Your task to perform on an android device: empty trash in the gmail app Image 0: 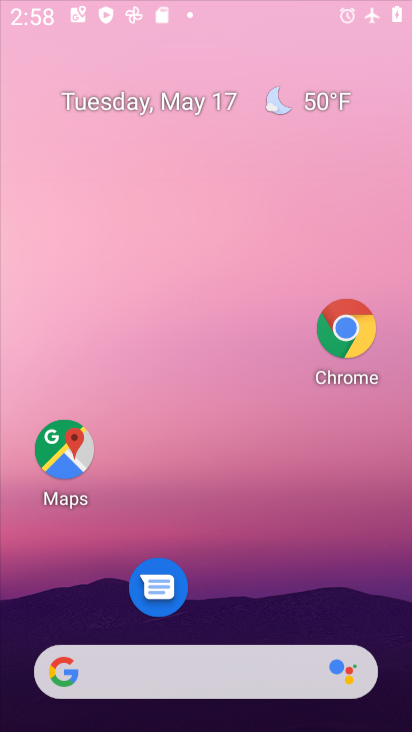
Step 0: click (266, 26)
Your task to perform on an android device: empty trash in the gmail app Image 1: 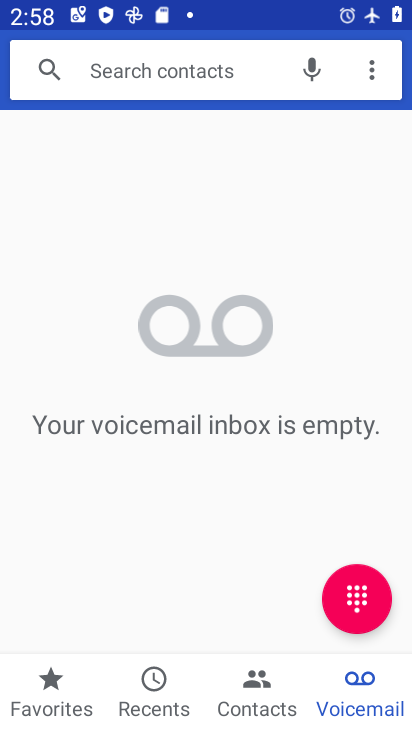
Step 1: press home button
Your task to perform on an android device: empty trash in the gmail app Image 2: 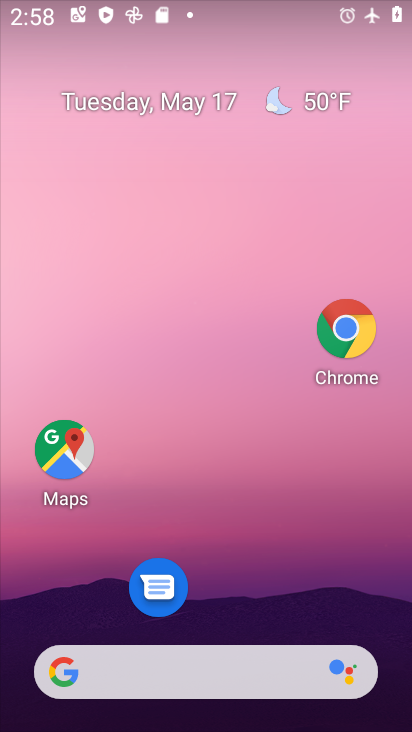
Step 2: click (345, 344)
Your task to perform on an android device: empty trash in the gmail app Image 3: 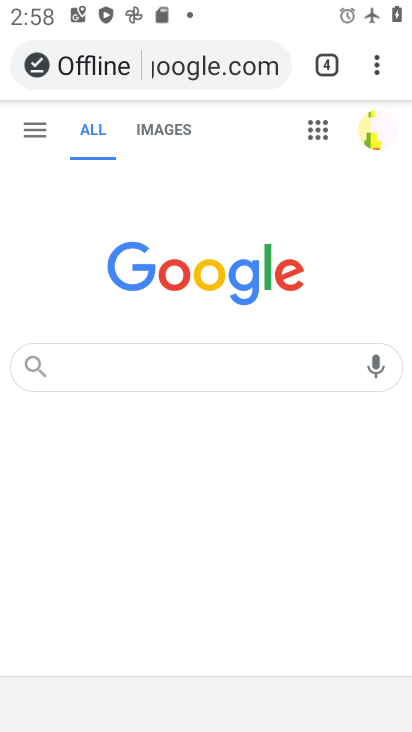
Step 3: press home button
Your task to perform on an android device: empty trash in the gmail app Image 4: 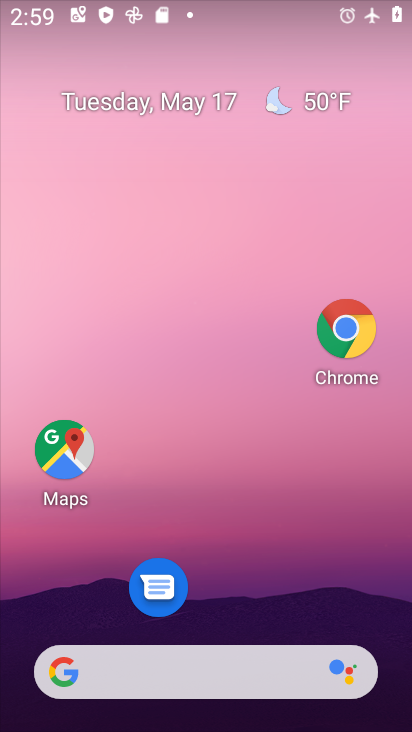
Step 4: drag from (264, 601) to (190, 118)
Your task to perform on an android device: empty trash in the gmail app Image 5: 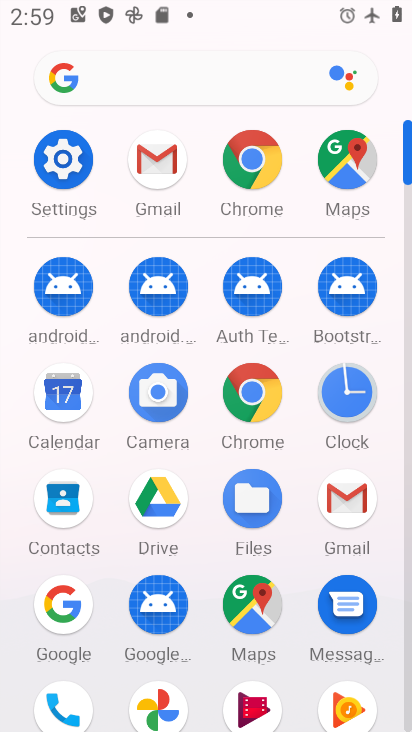
Step 5: click (166, 173)
Your task to perform on an android device: empty trash in the gmail app Image 6: 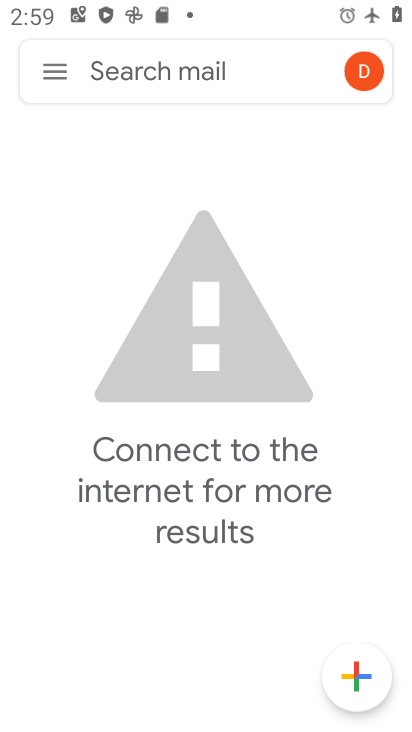
Step 6: click (59, 63)
Your task to perform on an android device: empty trash in the gmail app Image 7: 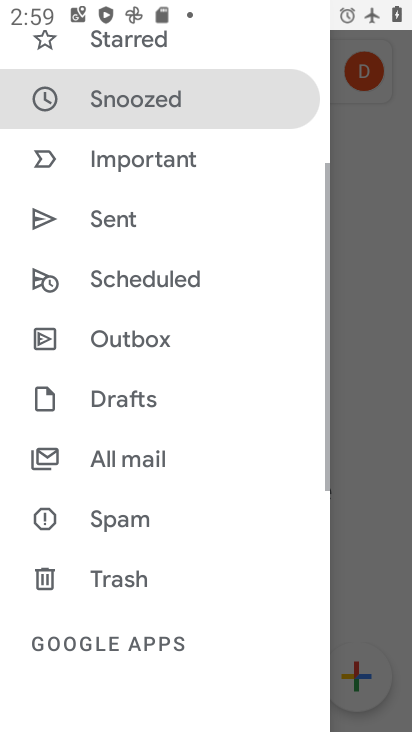
Step 7: click (48, 553)
Your task to perform on an android device: empty trash in the gmail app Image 8: 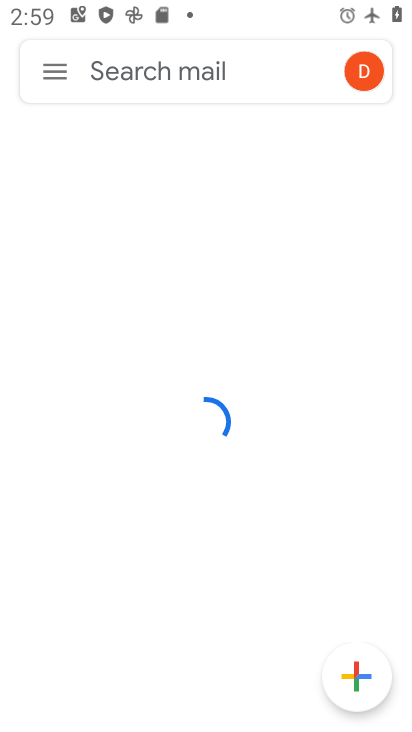
Step 8: task complete